Your task to perform on an android device: Open calendar and show me the fourth week of next month Image 0: 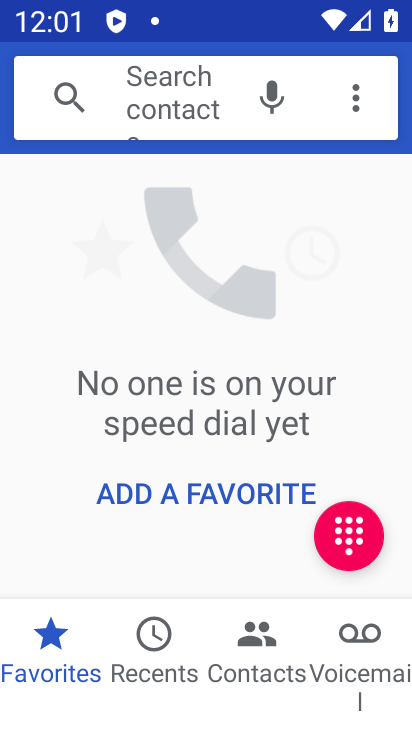
Step 0: press home button
Your task to perform on an android device: Open calendar and show me the fourth week of next month Image 1: 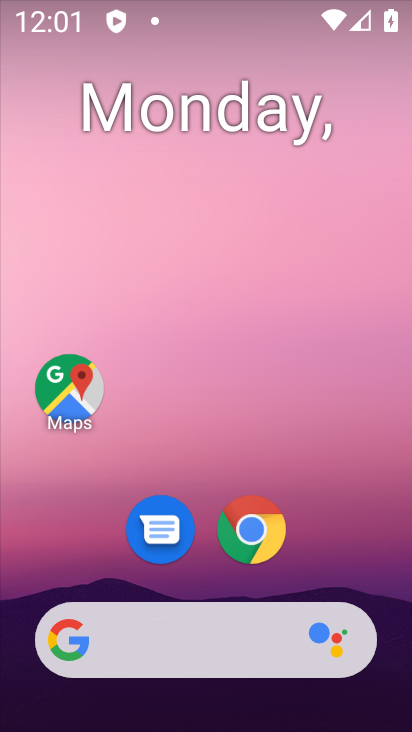
Step 1: drag from (259, 636) to (288, 56)
Your task to perform on an android device: Open calendar and show me the fourth week of next month Image 2: 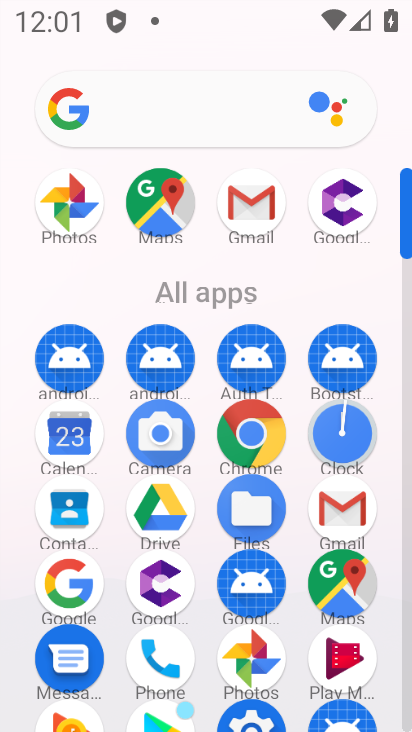
Step 2: click (81, 435)
Your task to perform on an android device: Open calendar and show me the fourth week of next month Image 3: 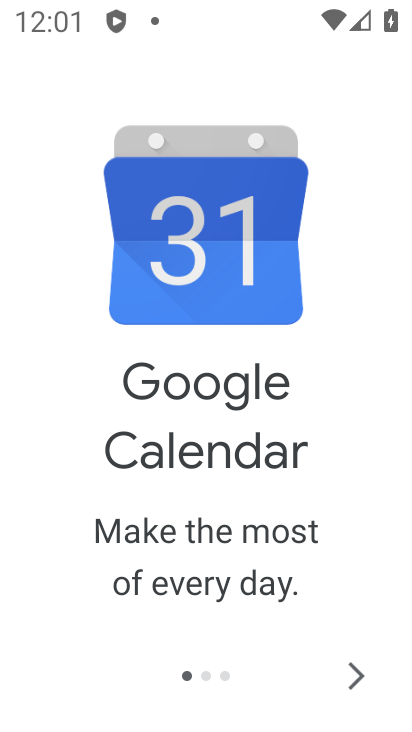
Step 3: click (350, 672)
Your task to perform on an android device: Open calendar and show me the fourth week of next month Image 4: 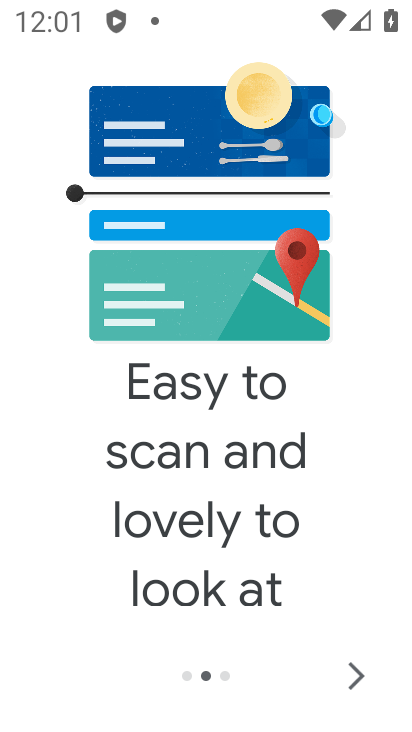
Step 4: click (350, 672)
Your task to perform on an android device: Open calendar and show me the fourth week of next month Image 5: 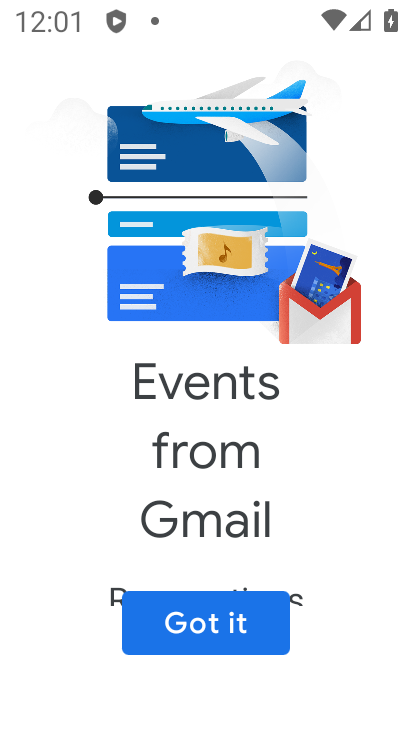
Step 5: click (350, 672)
Your task to perform on an android device: Open calendar and show me the fourth week of next month Image 6: 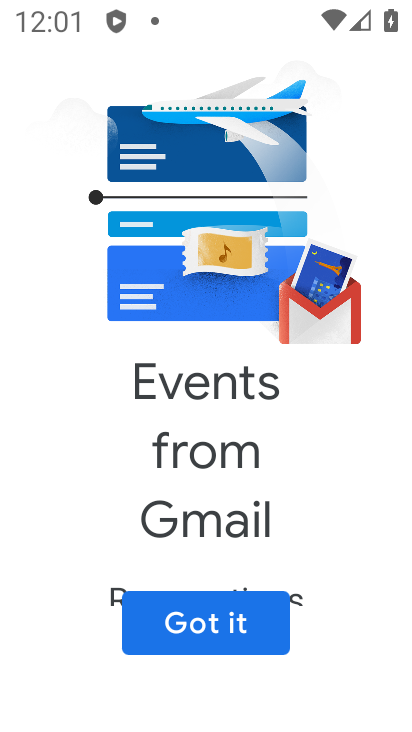
Step 6: click (259, 643)
Your task to perform on an android device: Open calendar and show me the fourth week of next month Image 7: 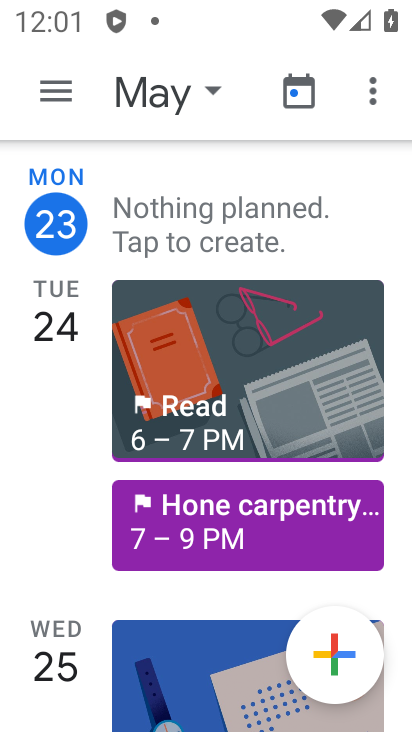
Step 7: click (62, 98)
Your task to perform on an android device: Open calendar and show me the fourth week of next month Image 8: 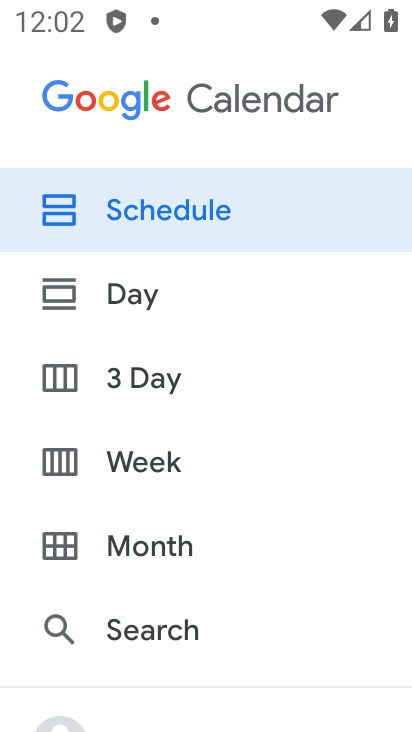
Step 8: click (134, 566)
Your task to perform on an android device: Open calendar and show me the fourth week of next month Image 9: 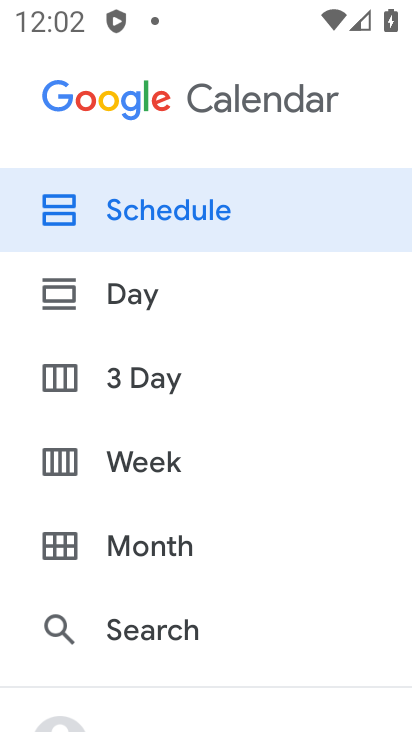
Step 9: click (165, 549)
Your task to perform on an android device: Open calendar and show me the fourth week of next month Image 10: 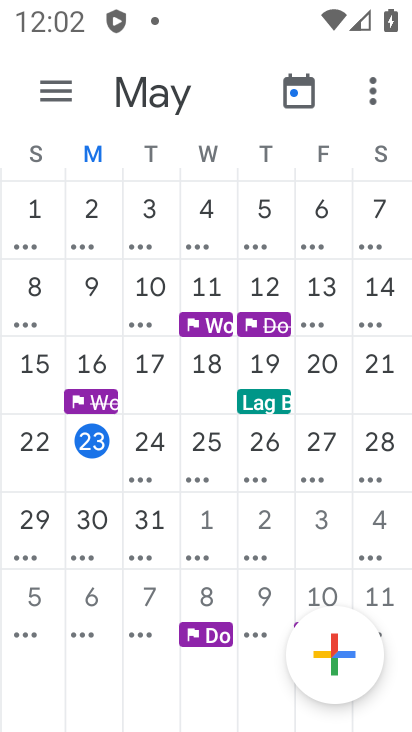
Step 10: task complete